Your task to perform on an android device: turn notification dots on Image 0: 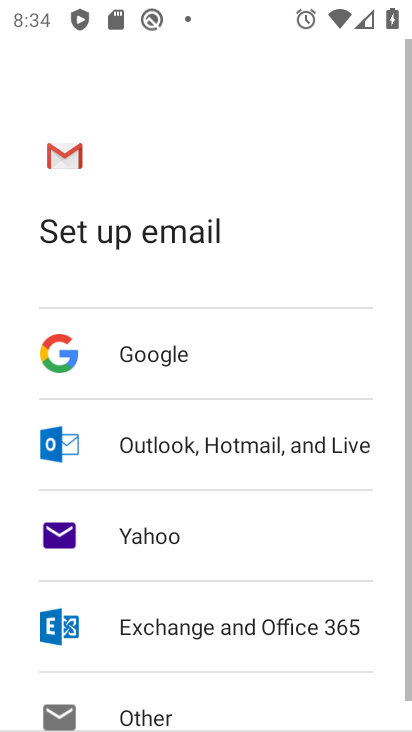
Step 0: press home button
Your task to perform on an android device: turn notification dots on Image 1: 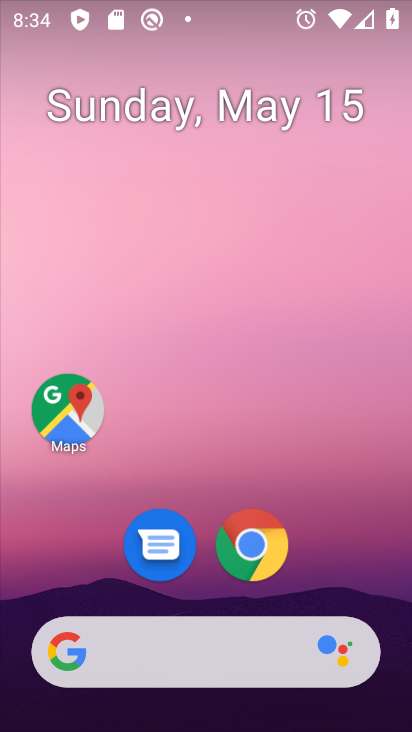
Step 1: drag from (372, 563) to (371, 88)
Your task to perform on an android device: turn notification dots on Image 2: 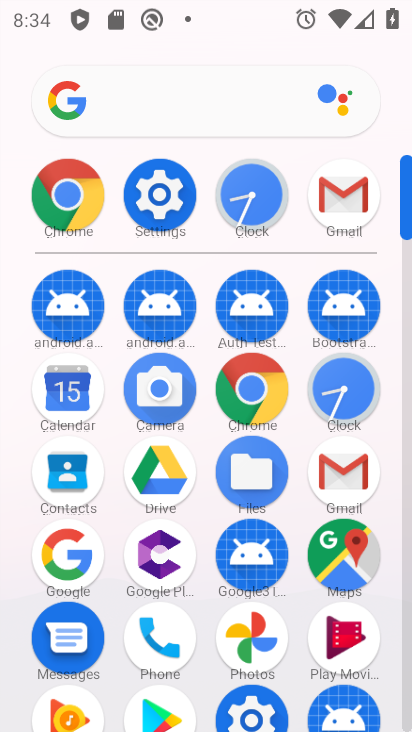
Step 2: click (165, 210)
Your task to perform on an android device: turn notification dots on Image 3: 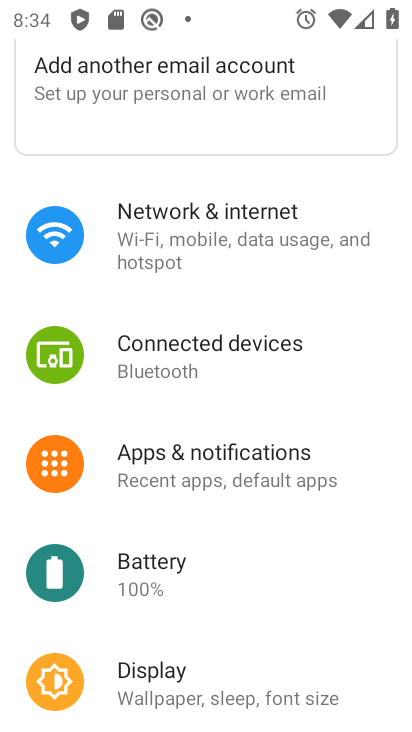
Step 3: drag from (341, 618) to (352, 384)
Your task to perform on an android device: turn notification dots on Image 4: 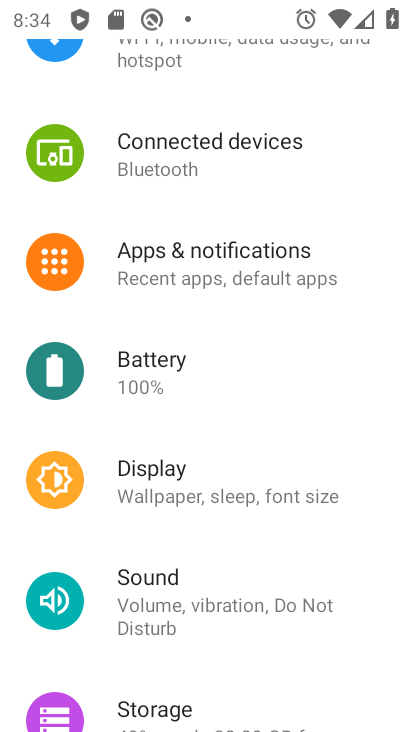
Step 4: drag from (326, 555) to (340, 420)
Your task to perform on an android device: turn notification dots on Image 5: 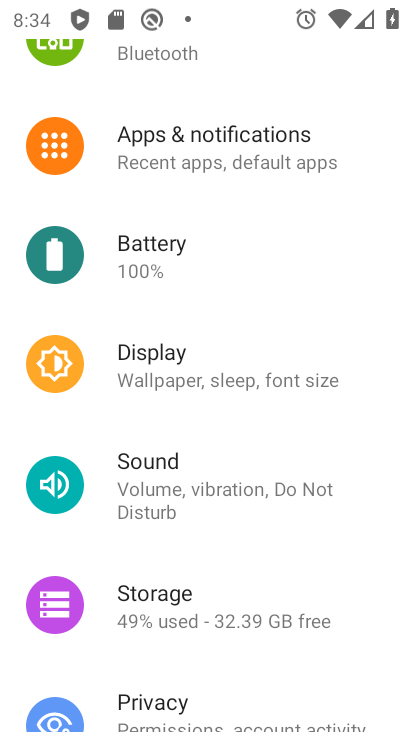
Step 5: drag from (364, 670) to (383, 346)
Your task to perform on an android device: turn notification dots on Image 6: 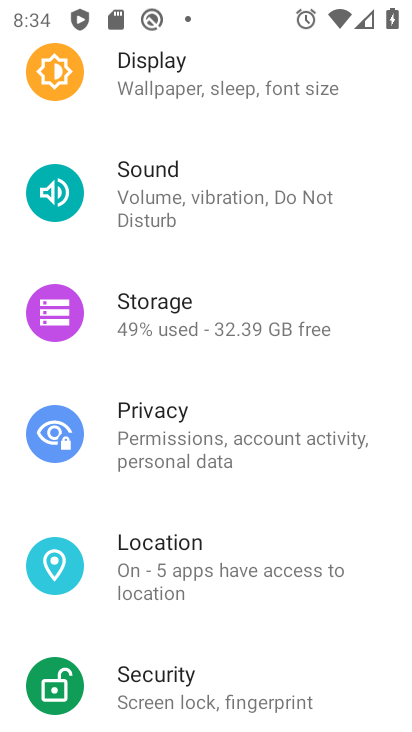
Step 6: drag from (366, 639) to (366, 337)
Your task to perform on an android device: turn notification dots on Image 7: 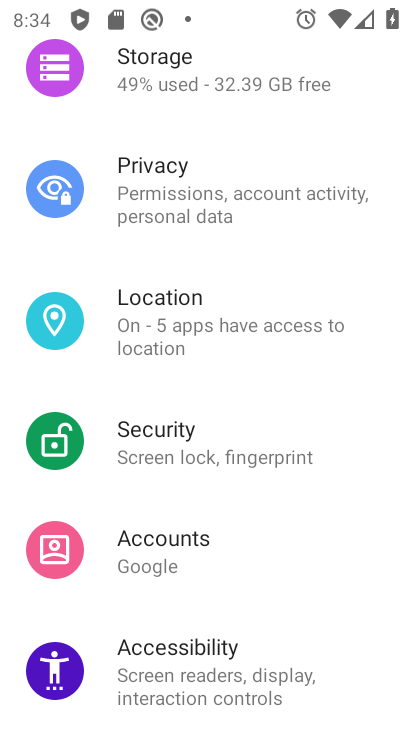
Step 7: drag from (342, 640) to (376, 351)
Your task to perform on an android device: turn notification dots on Image 8: 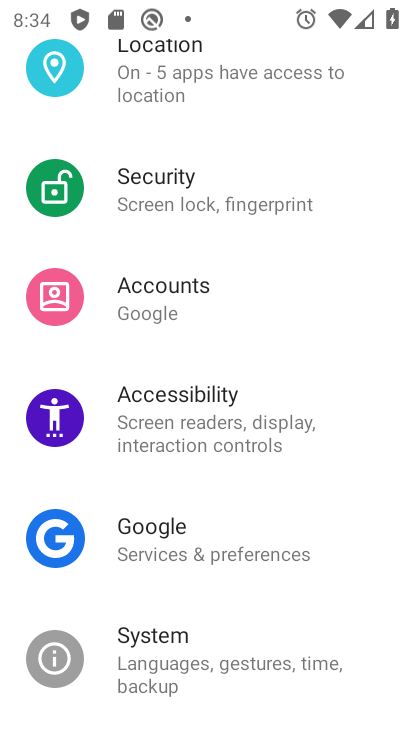
Step 8: drag from (359, 602) to (362, 314)
Your task to perform on an android device: turn notification dots on Image 9: 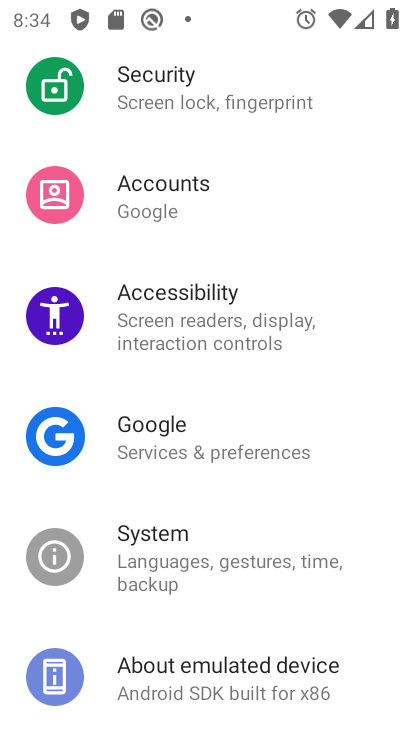
Step 9: drag from (371, 224) to (350, 524)
Your task to perform on an android device: turn notification dots on Image 10: 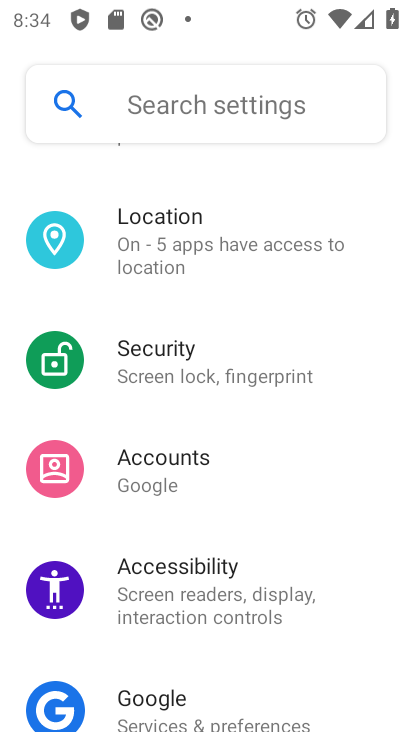
Step 10: drag from (365, 210) to (379, 482)
Your task to perform on an android device: turn notification dots on Image 11: 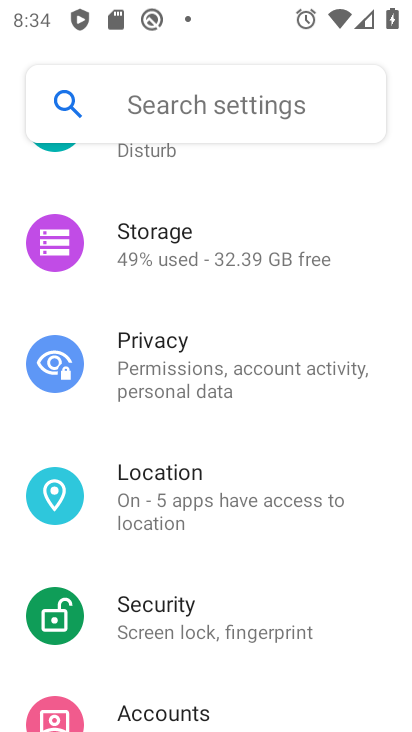
Step 11: drag from (366, 215) to (360, 513)
Your task to perform on an android device: turn notification dots on Image 12: 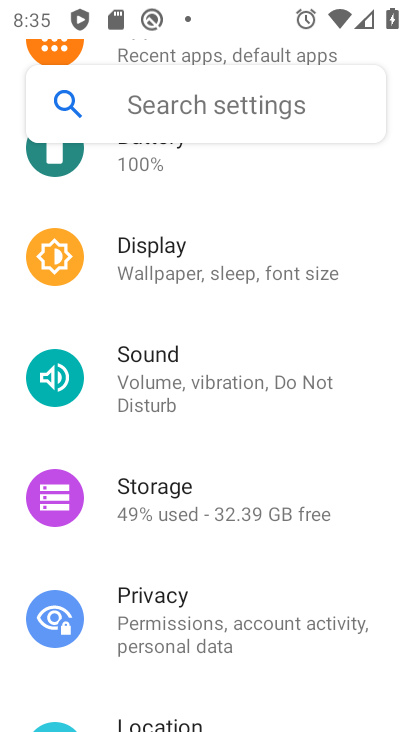
Step 12: drag from (364, 207) to (359, 497)
Your task to perform on an android device: turn notification dots on Image 13: 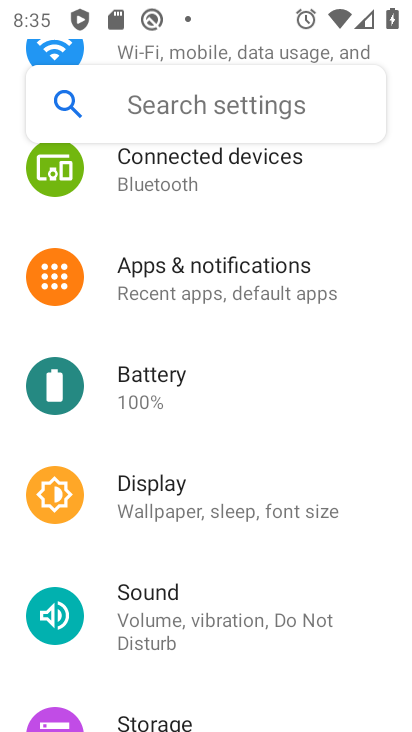
Step 13: click (233, 274)
Your task to perform on an android device: turn notification dots on Image 14: 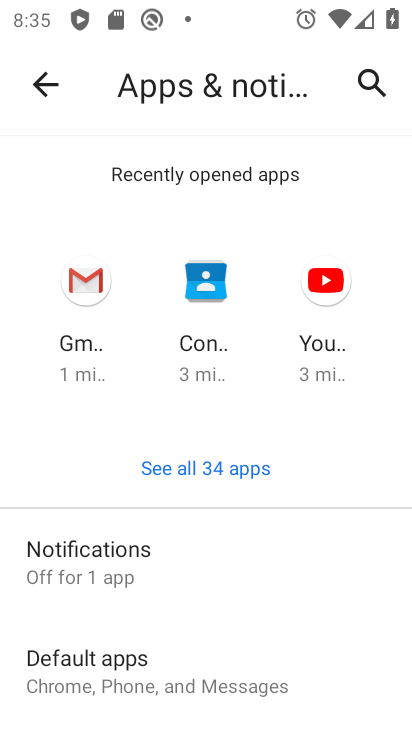
Step 14: click (121, 585)
Your task to perform on an android device: turn notification dots on Image 15: 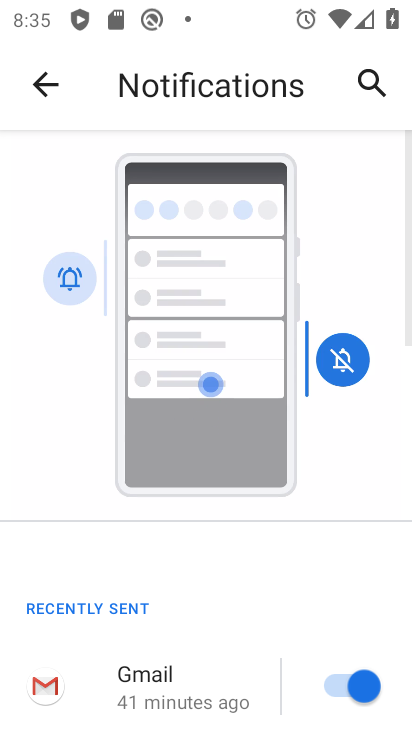
Step 15: drag from (260, 616) to (285, 267)
Your task to perform on an android device: turn notification dots on Image 16: 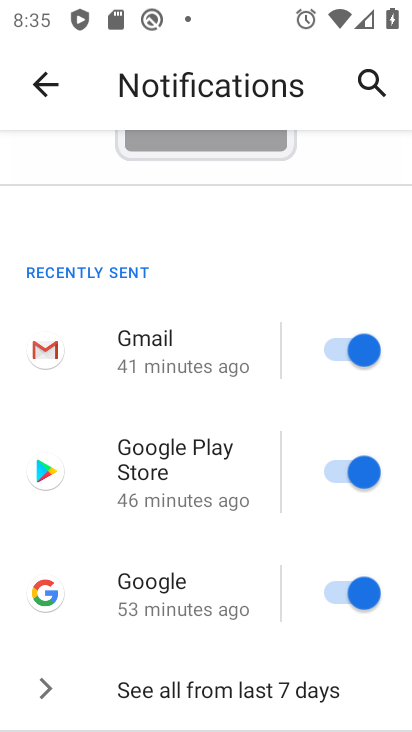
Step 16: drag from (258, 633) to (260, 305)
Your task to perform on an android device: turn notification dots on Image 17: 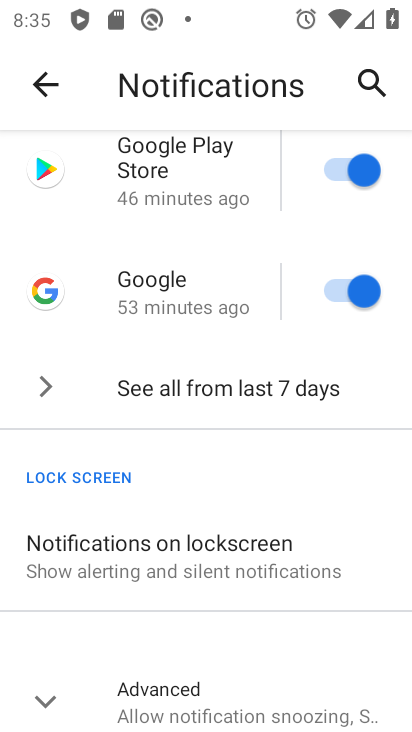
Step 17: drag from (264, 651) to (269, 396)
Your task to perform on an android device: turn notification dots on Image 18: 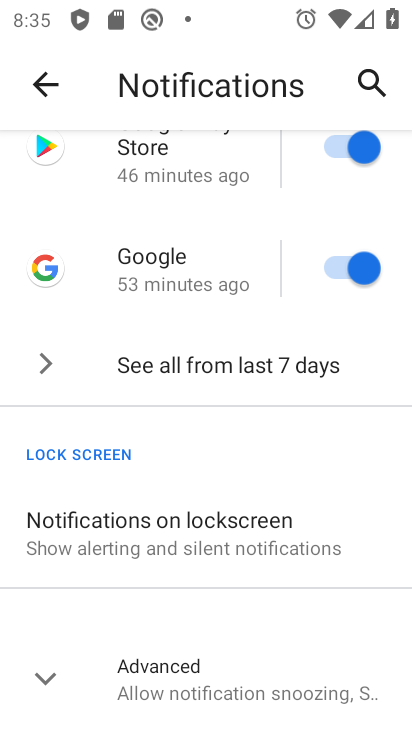
Step 18: drag from (227, 173) to (241, 227)
Your task to perform on an android device: turn notification dots on Image 19: 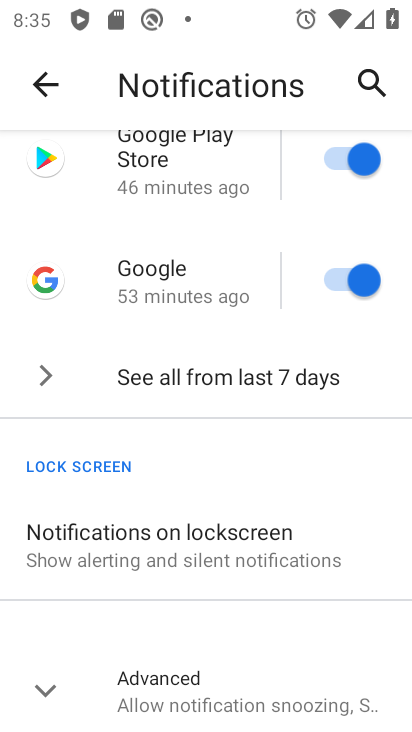
Step 19: click (217, 693)
Your task to perform on an android device: turn notification dots on Image 20: 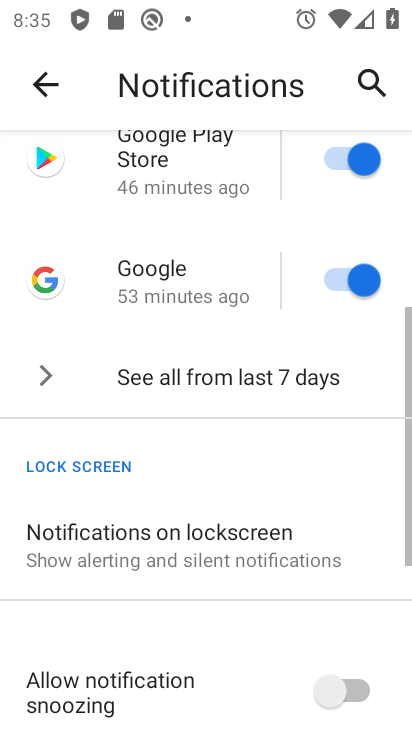
Step 20: drag from (253, 697) to (265, 381)
Your task to perform on an android device: turn notification dots on Image 21: 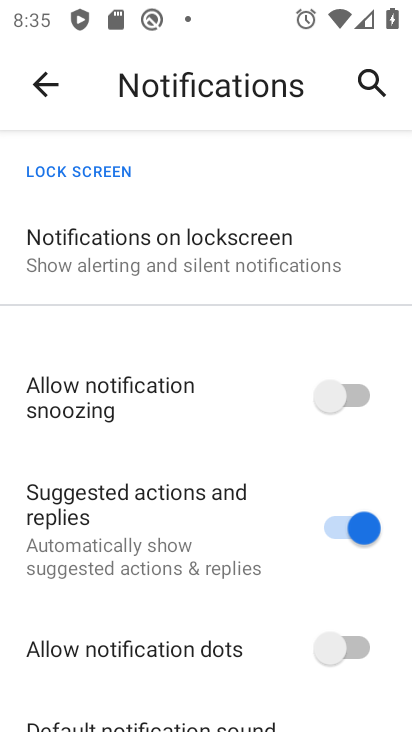
Step 21: drag from (210, 596) to (229, 389)
Your task to perform on an android device: turn notification dots on Image 22: 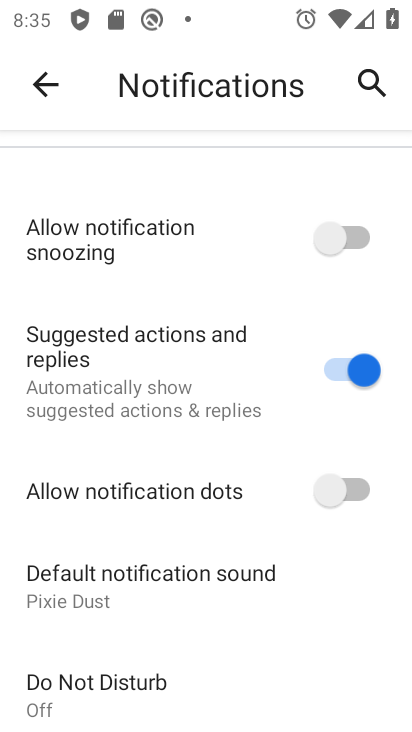
Step 22: click (355, 497)
Your task to perform on an android device: turn notification dots on Image 23: 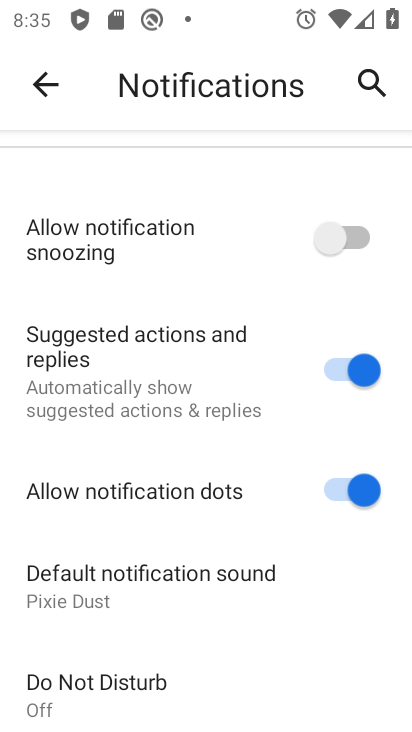
Step 23: task complete